Your task to perform on an android device: Open calendar and show me the fourth week of next month Image 0: 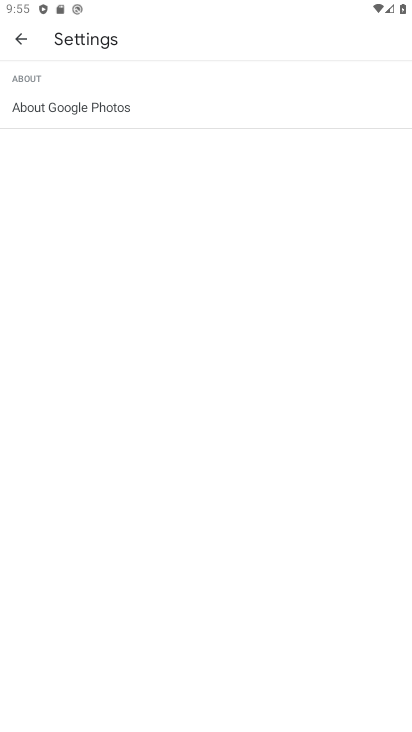
Step 0: press home button
Your task to perform on an android device: Open calendar and show me the fourth week of next month Image 1: 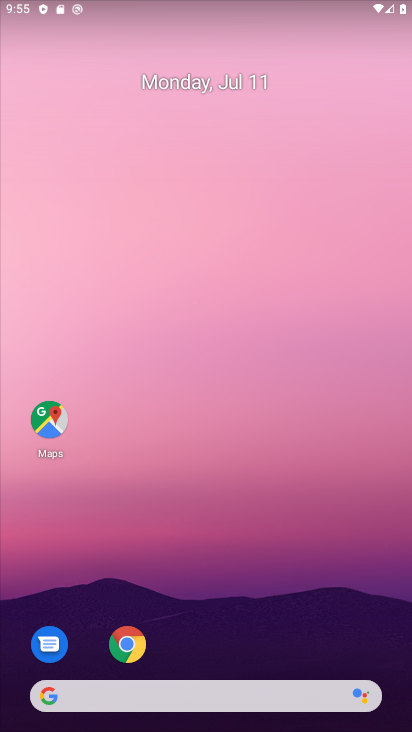
Step 1: drag from (192, 688) to (220, 377)
Your task to perform on an android device: Open calendar and show me the fourth week of next month Image 2: 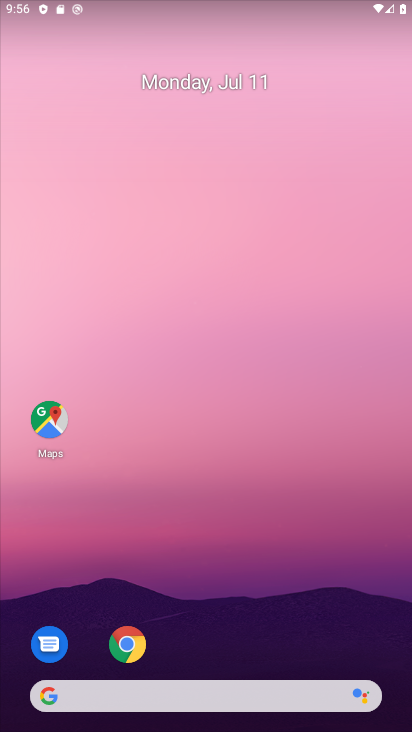
Step 2: drag from (129, 666) to (168, 451)
Your task to perform on an android device: Open calendar and show me the fourth week of next month Image 3: 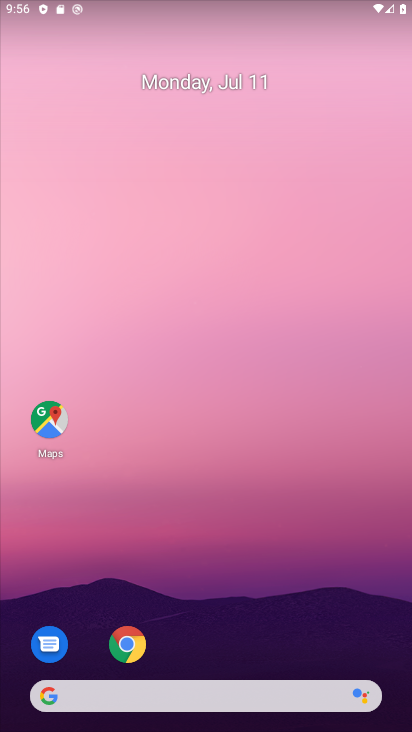
Step 3: drag from (251, 540) to (251, 417)
Your task to perform on an android device: Open calendar and show me the fourth week of next month Image 4: 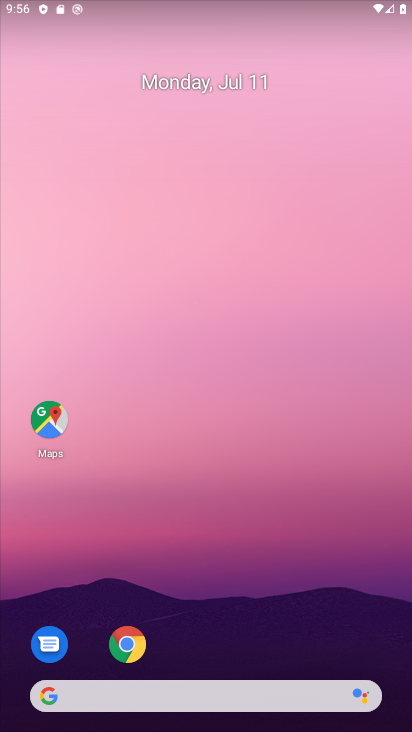
Step 4: drag from (207, 691) to (222, 375)
Your task to perform on an android device: Open calendar and show me the fourth week of next month Image 5: 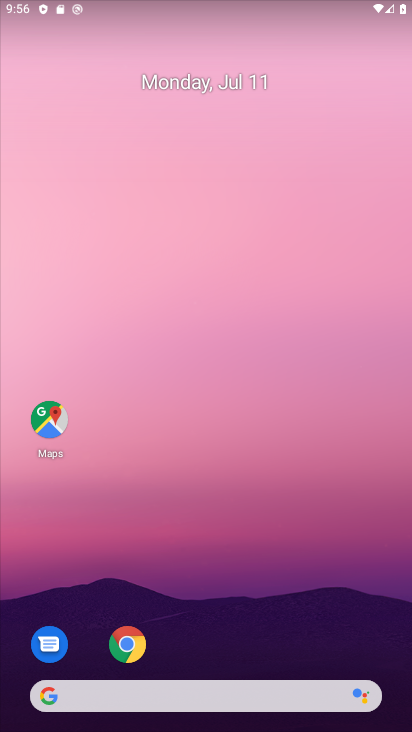
Step 5: drag from (252, 679) to (314, 300)
Your task to perform on an android device: Open calendar and show me the fourth week of next month Image 6: 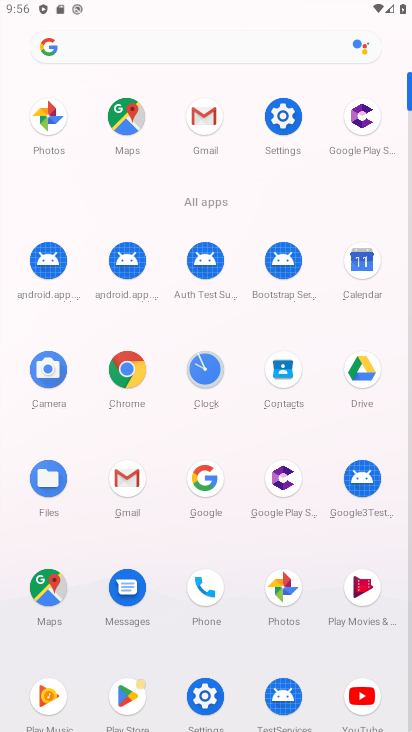
Step 6: click (364, 277)
Your task to perform on an android device: Open calendar and show me the fourth week of next month Image 7: 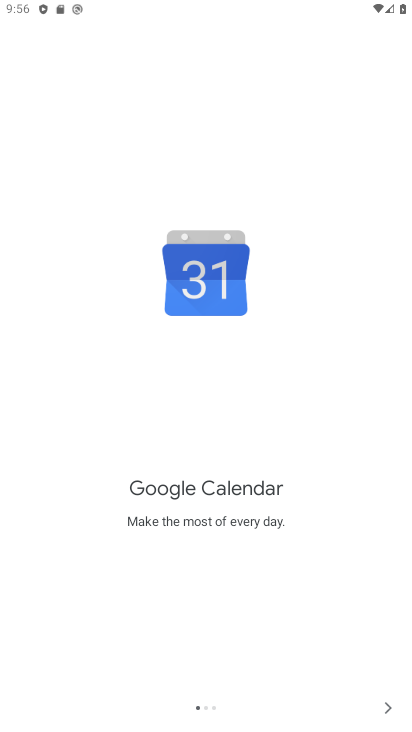
Step 7: click (385, 706)
Your task to perform on an android device: Open calendar and show me the fourth week of next month Image 8: 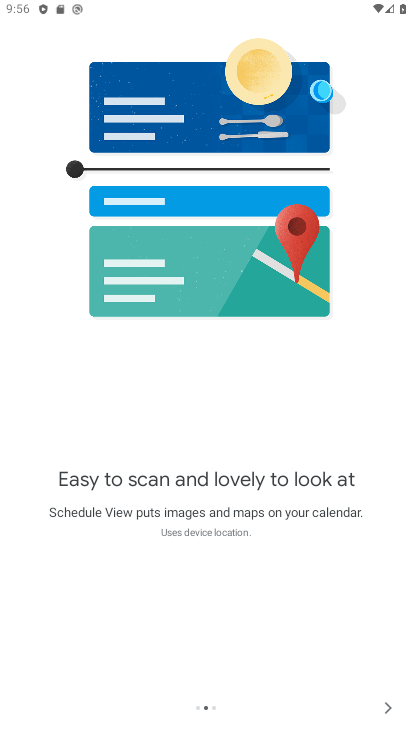
Step 8: click (385, 706)
Your task to perform on an android device: Open calendar and show me the fourth week of next month Image 9: 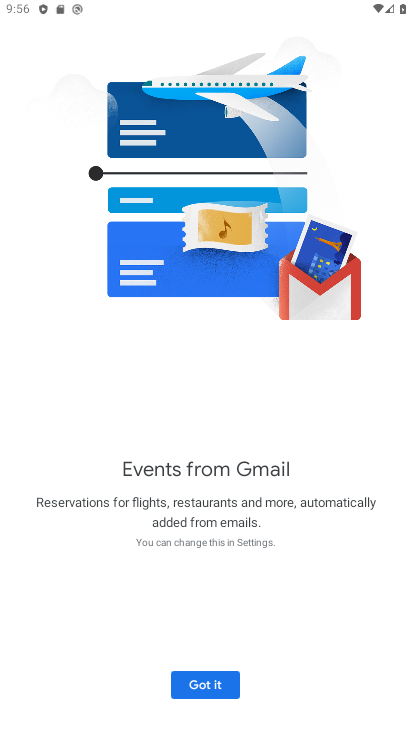
Step 9: click (187, 676)
Your task to perform on an android device: Open calendar and show me the fourth week of next month Image 10: 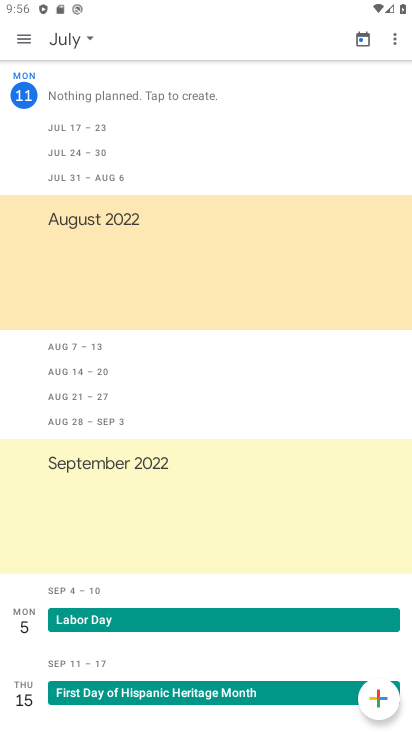
Step 10: click (68, 38)
Your task to perform on an android device: Open calendar and show me the fourth week of next month Image 11: 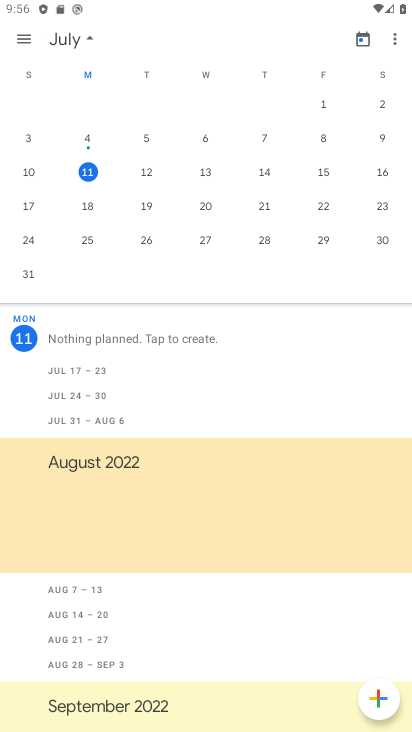
Step 11: drag from (388, 220) to (0, 219)
Your task to perform on an android device: Open calendar and show me the fourth week of next month Image 12: 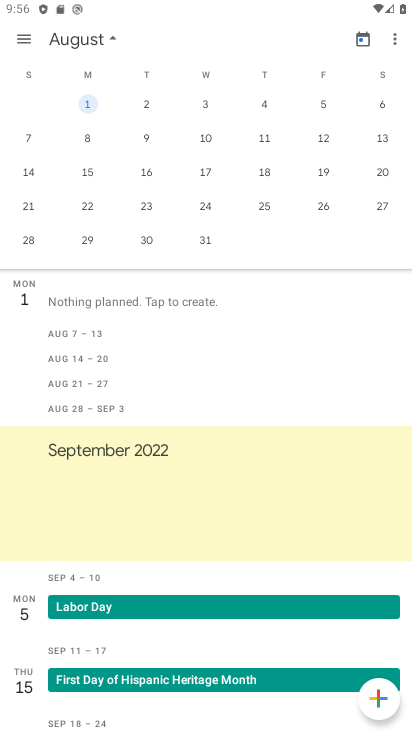
Step 12: click (26, 207)
Your task to perform on an android device: Open calendar and show me the fourth week of next month Image 13: 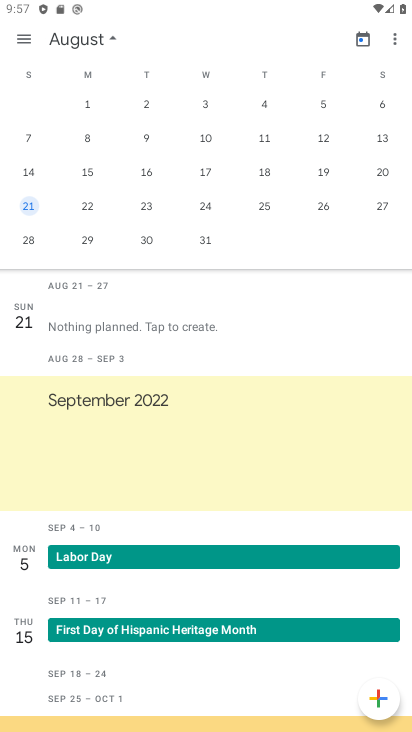
Step 13: task complete